Your task to perform on an android device: Clear the shopping cart on bestbuy.com. Add "dell xps" to the cart on bestbuy.com, then select checkout. Image 0: 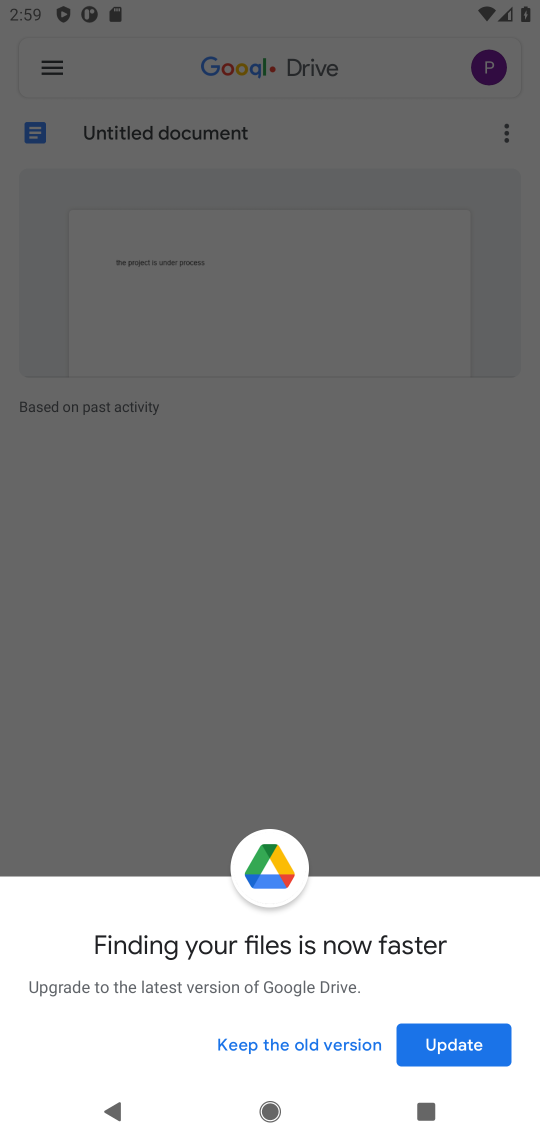
Step 0: press home button
Your task to perform on an android device: Clear the shopping cart on bestbuy.com. Add "dell xps" to the cart on bestbuy.com, then select checkout. Image 1: 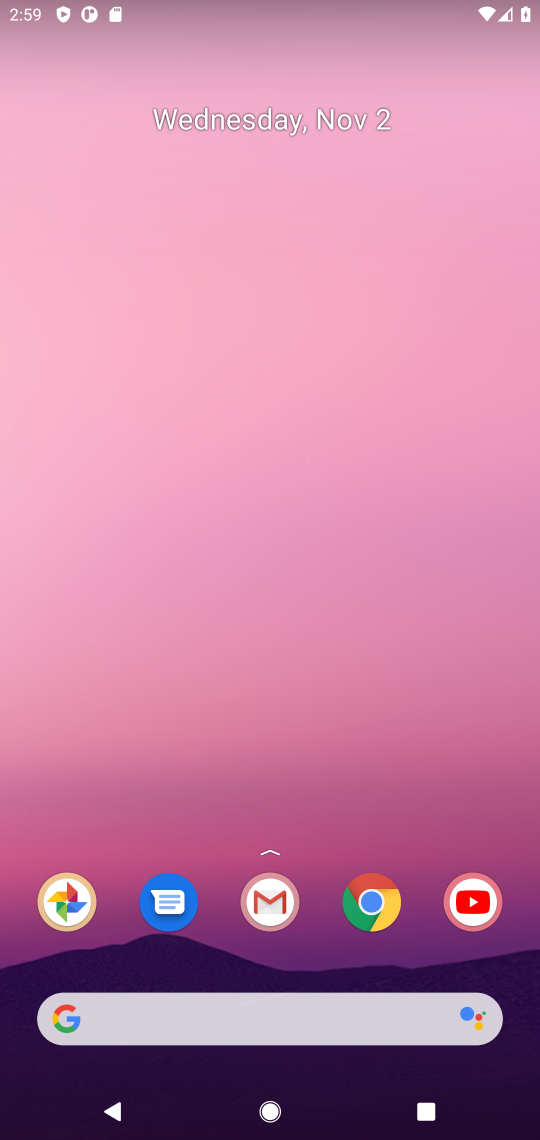
Step 1: click (366, 902)
Your task to perform on an android device: Clear the shopping cart on bestbuy.com. Add "dell xps" to the cart on bestbuy.com, then select checkout. Image 2: 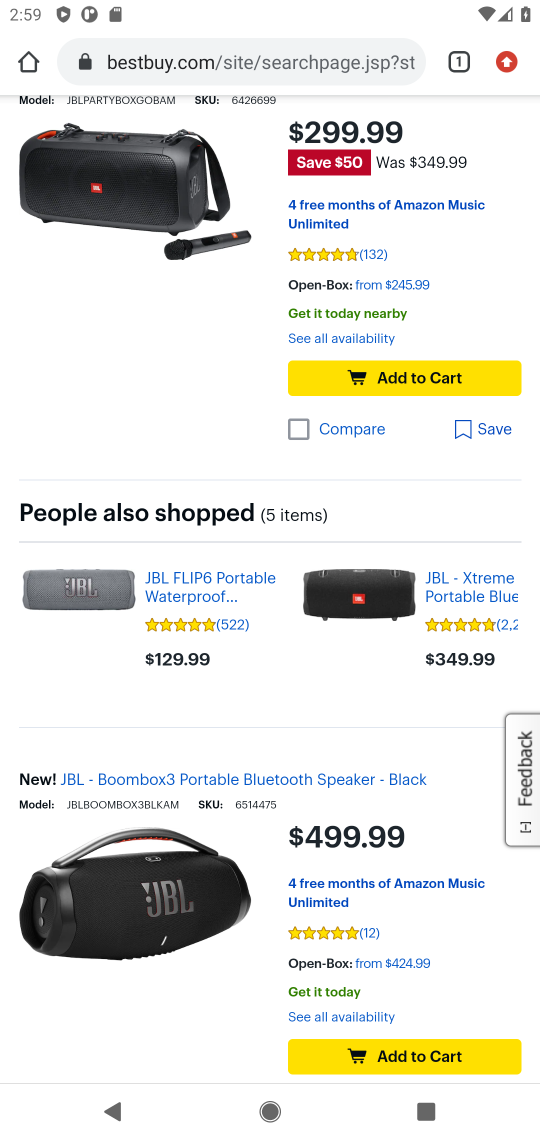
Step 2: click (302, 38)
Your task to perform on an android device: Clear the shopping cart on bestbuy.com. Add "dell xps" to the cart on bestbuy.com, then select checkout. Image 3: 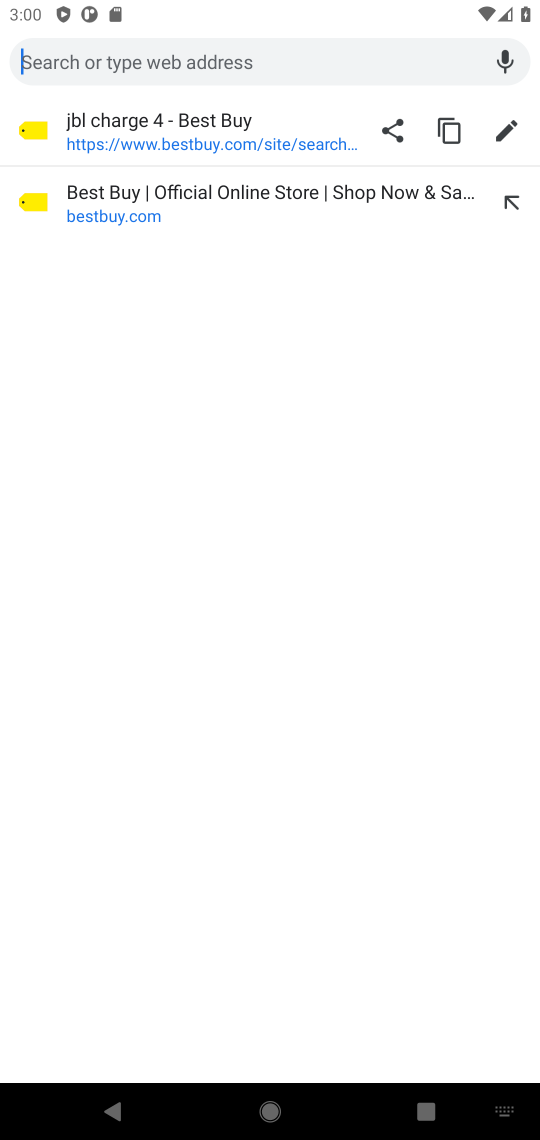
Step 3: type "bestbuy.com"
Your task to perform on an android device: Clear the shopping cart on bestbuy.com. Add "dell xps" to the cart on bestbuy.com, then select checkout. Image 4: 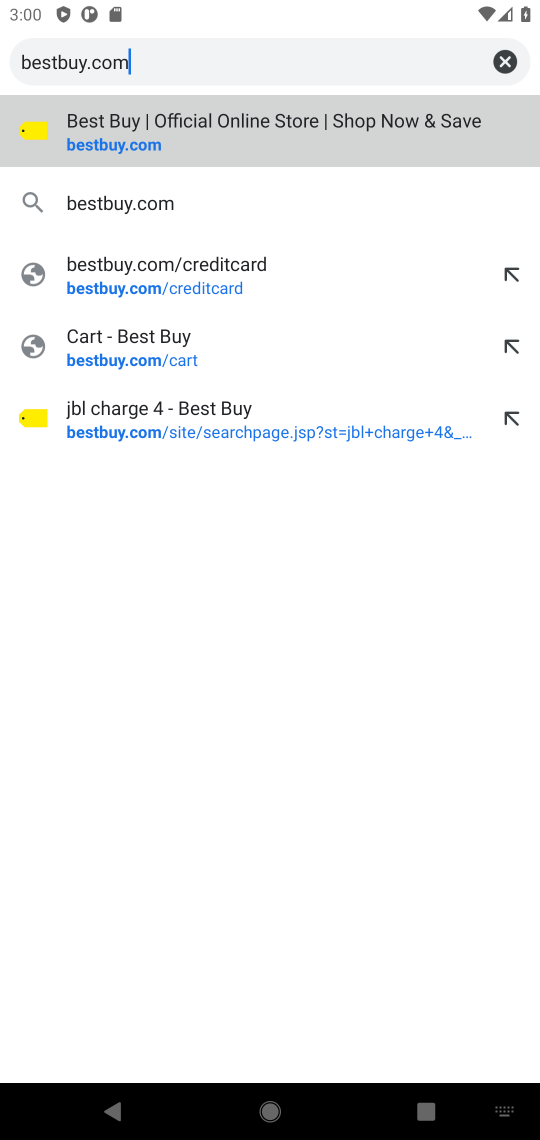
Step 4: click (127, 128)
Your task to perform on an android device: Clear the shopping cart on bestbuy.com. Add "dell xps" to the cart on bestbuy.com, then select checkout. Image 5: 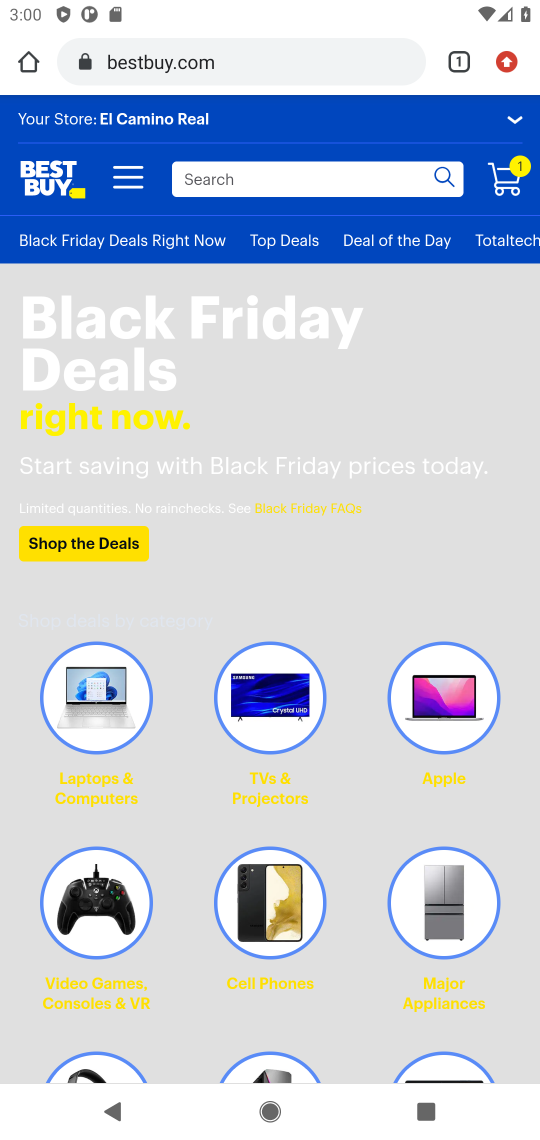
Step 5: click (496, 176)
Your task to perform on an android device: Clear the shopping cart on bestbuy.com. Add "dell xps" to the cart on bestbuy.com, then select checkout. Image 6: 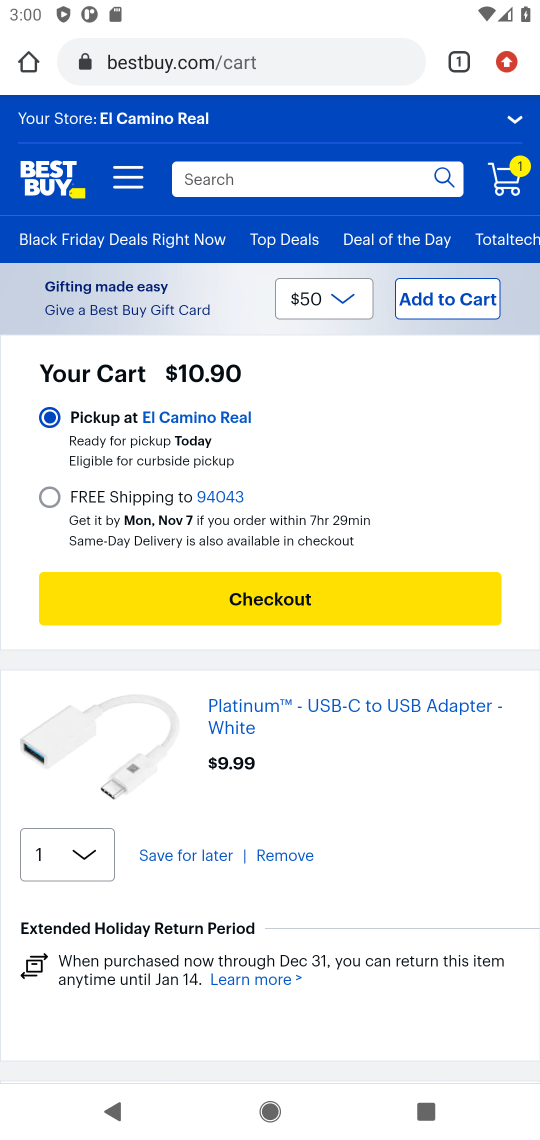
Step 6: click (277, 855)
Your task to perform on an android device: Clear the shopping cart on bestbuy.com. Add "dell xps" to the cart on bestbuy.com, then select checkout. Image 7: 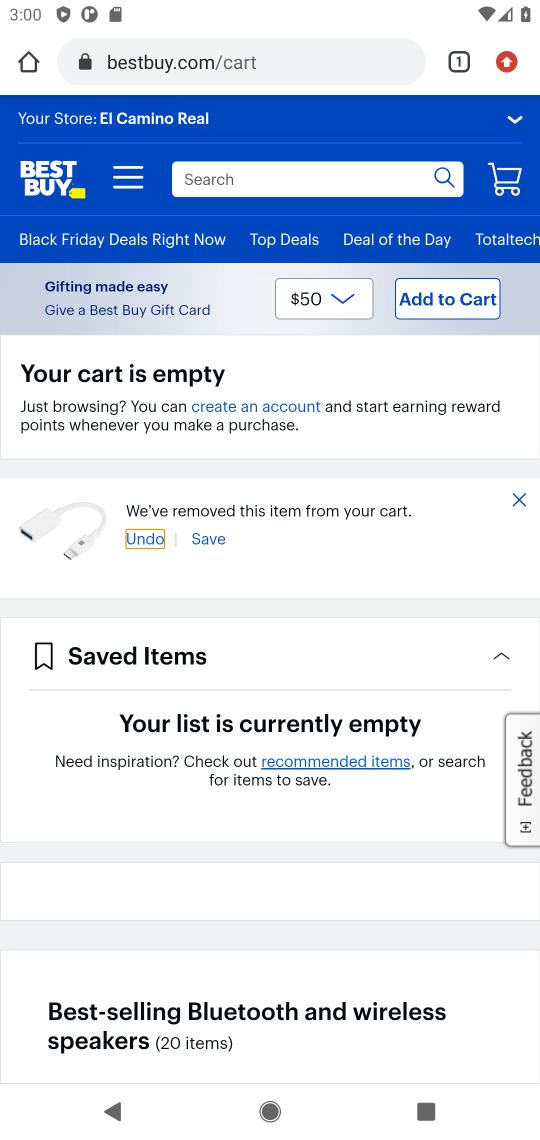
Step 7: click (208, 169)
Your task to perform on an android device: Clear the shopping cart on bestbuy.com. Add "dell xps" to the cart on bestbuy.com, then select checkout. Image 8: 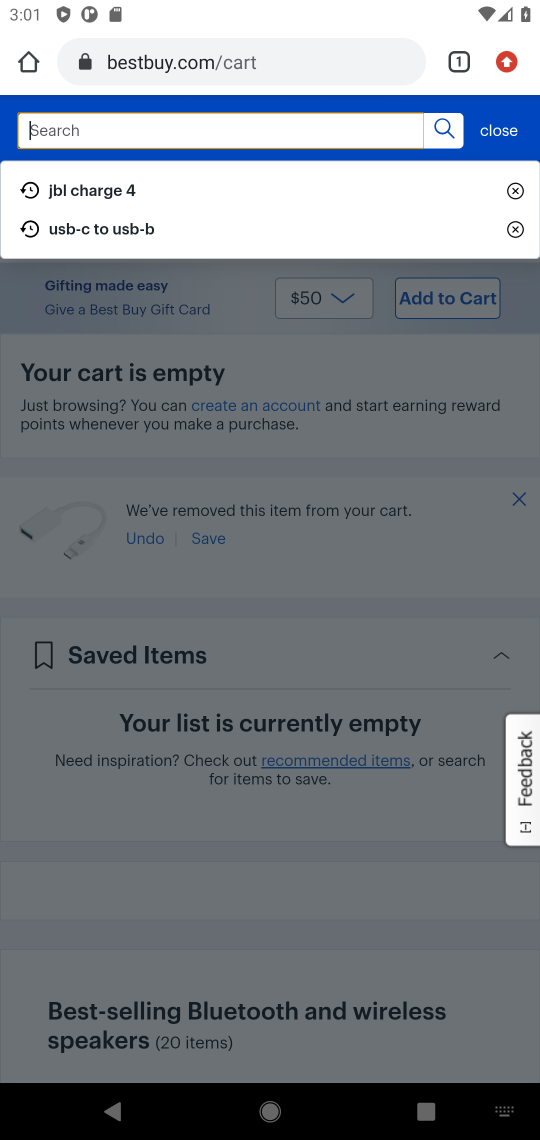
Step 8: type "dell xps"
Your task to perform on an android device: Clear the shopping cart on bestbuy.com. Add "dell xps" to the cart on bestbuy.com, then select checkout. Image 9: 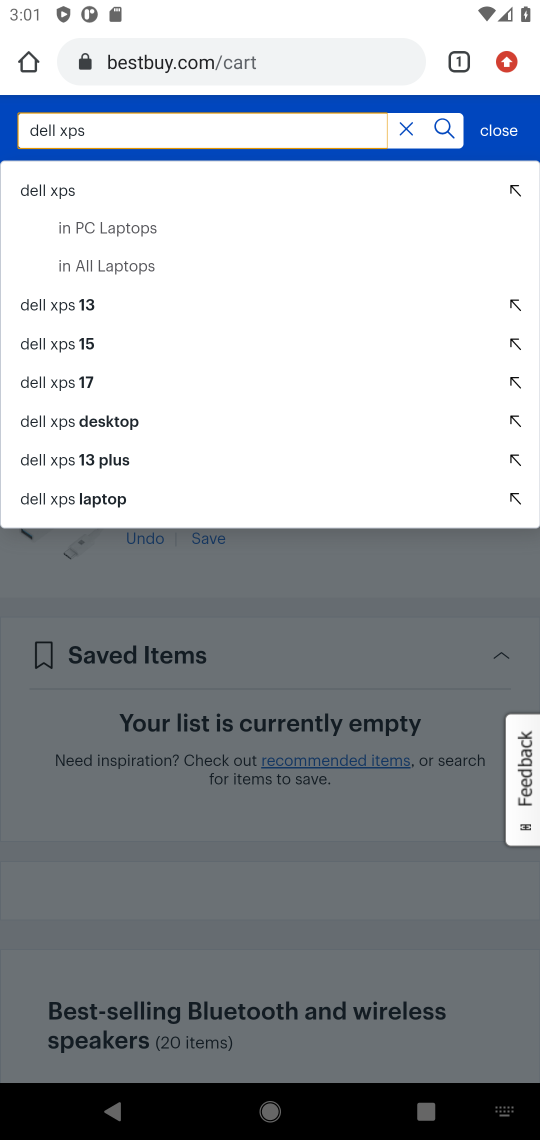
Step 9: click (42, 178)
Your task to perform on an android device: Clear the shopping cart on bestbuy.com. Add "dell xps" to the cart on bestbuy.com, then select checkout. Image 10: 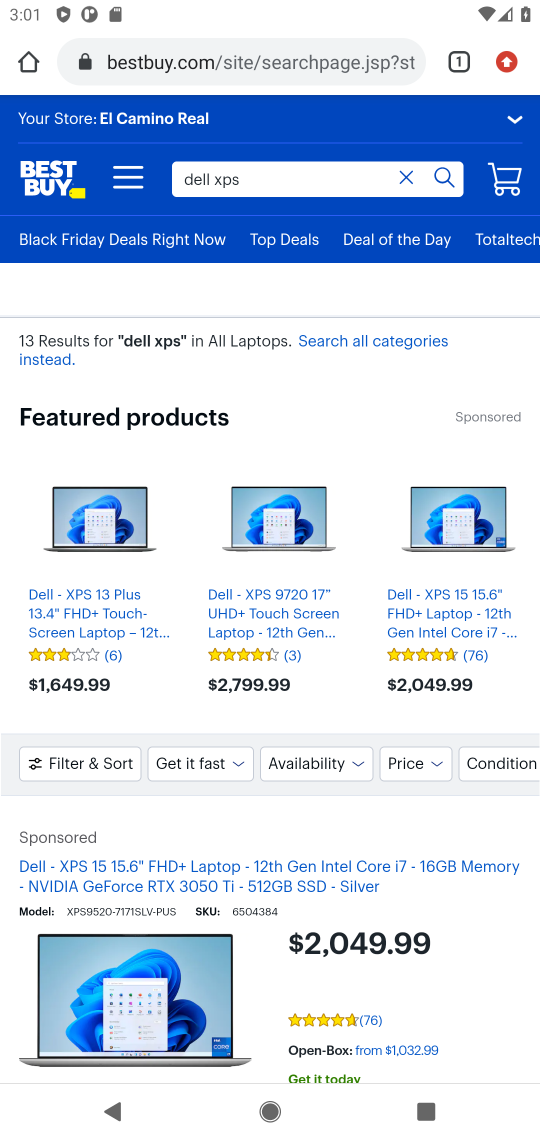
Step 10: drag from (281, 945) to (309, 464)
Your task to perform on an android device: Clear the shopping cart on bestbuy.com. Add "dell xps" to the cart on bestbuy.com, then select checkout. Image 11: 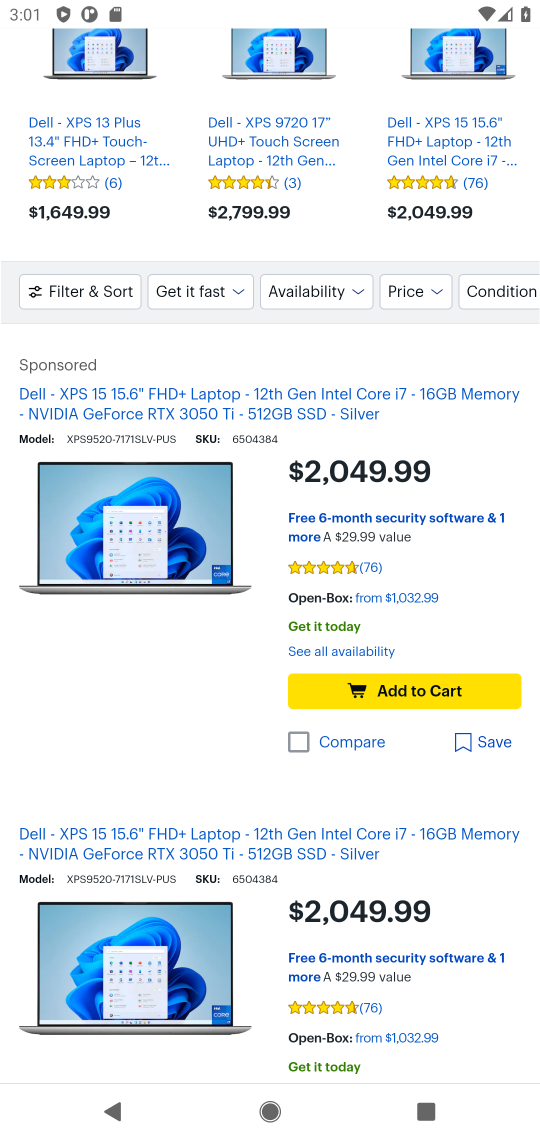
Step 11: click (407, 634)
Your task to perform on an android device: Clear the shopping cart on bestbuy.com. Add "dell xps" to the cart on bestbuy.com, then select checkout. Image 12: 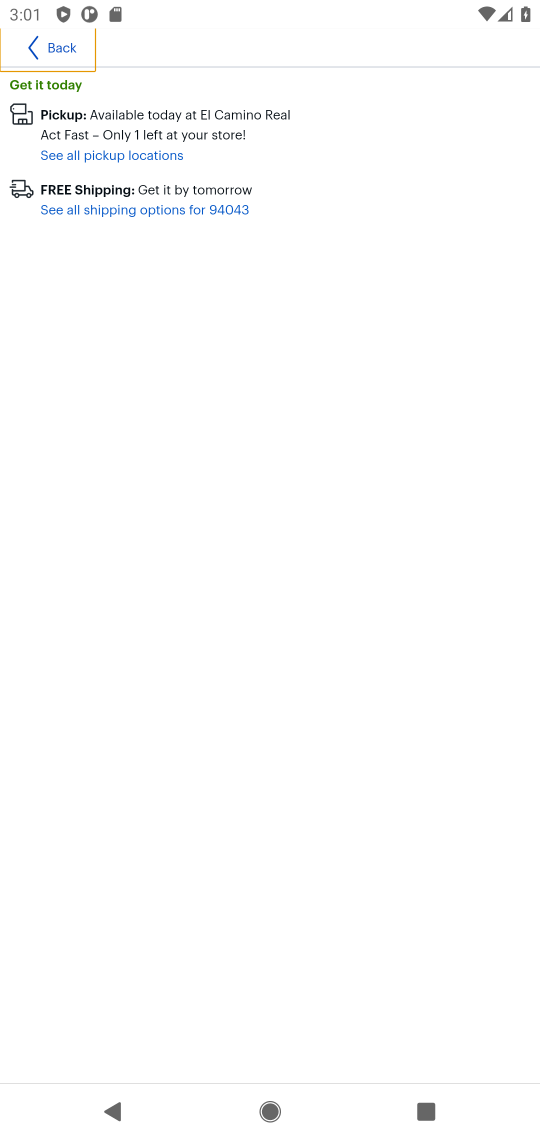
Step 12: click (404, 692)
Your task to perform on an android device: Clear the shopping cart on bestbuy.com. Add "dell xps" to the cart on bestbuy.com, then select checkout. Image 13: 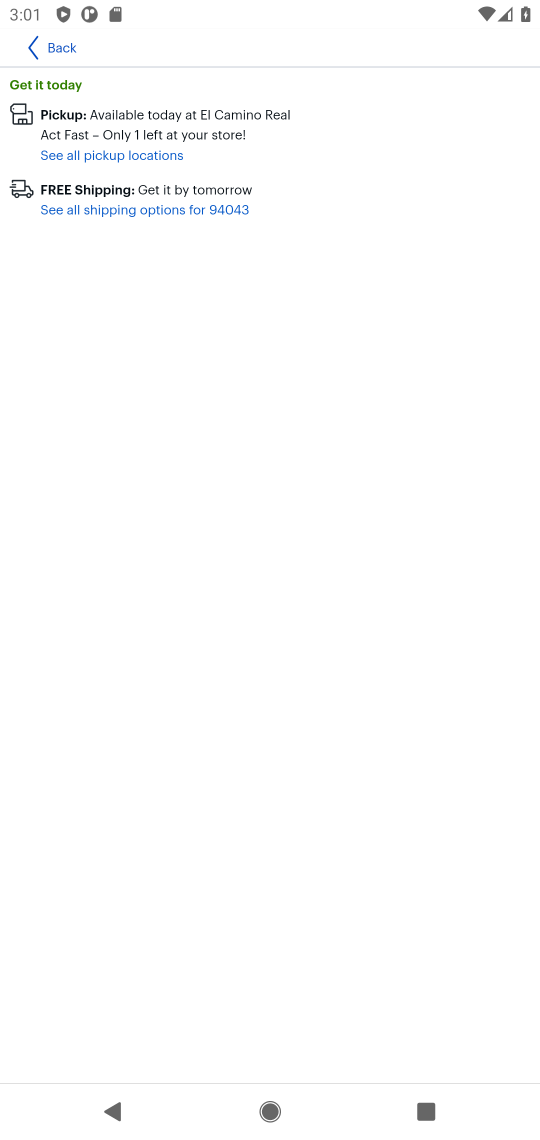
Step 13: click (35, 45)
Your task to perform on an android device: Clear the shopping cart on bestbuy.com. Add "dell xps" to the cart on bestbuy.com, then select checkout. Image 14: 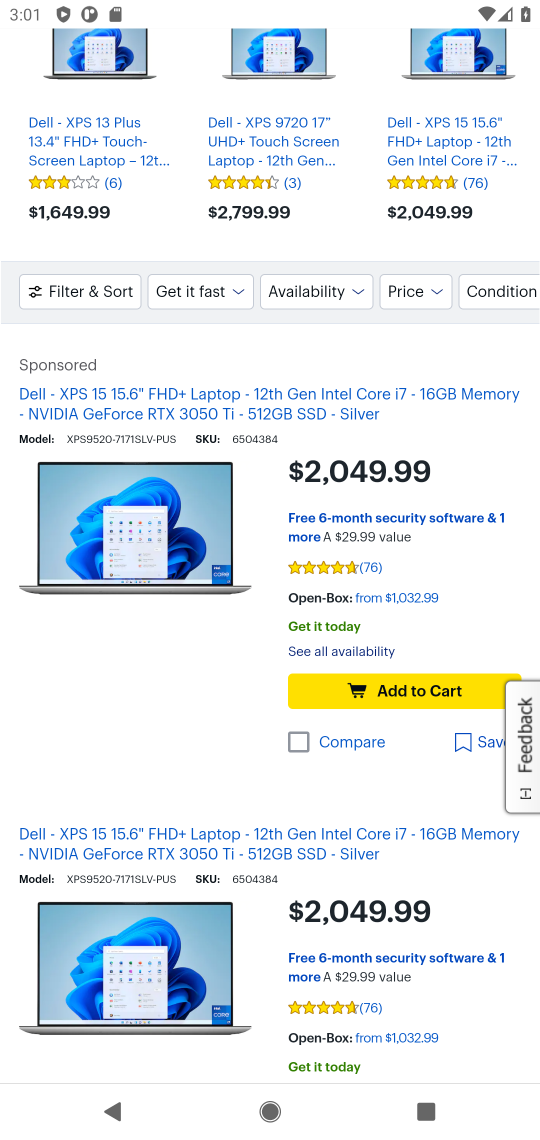
Step 14: click (393, 687)
Your task to perform on an android device: Clear the shopping cart on bestbuy.com. Add "dell xps" to the cart on bestbuy.com, then select checkout. Image 15: 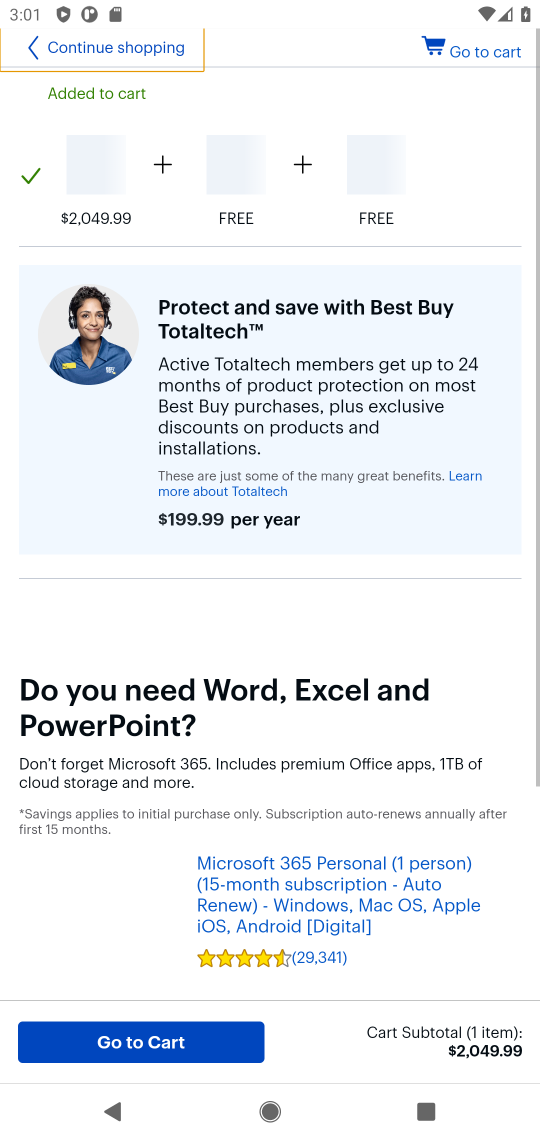
Step 15: click (464, 47)
Your task to perform on an android device: Clear the shopping cart on bestbuy.com. Add "dell xps" to the cart on bestbuy.com, then select checkout. Image 16: 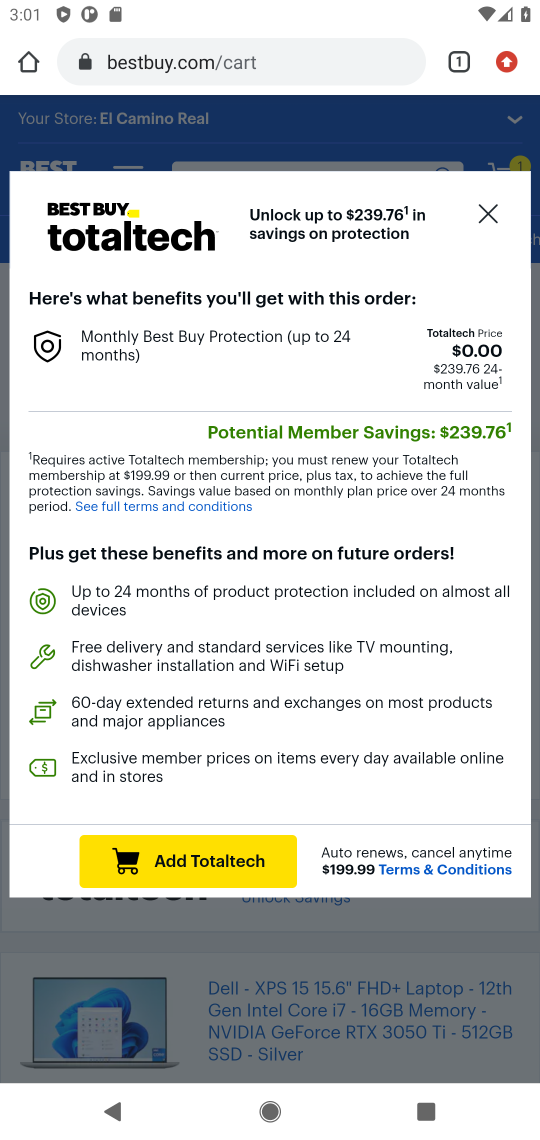
Step 16: click (485, 210)
Your task to perform on an android device: Clear the shopping cart on bestbuy.com. Add "dell xps" to the cart on bestbuy.com, then select checkout. Image 17: 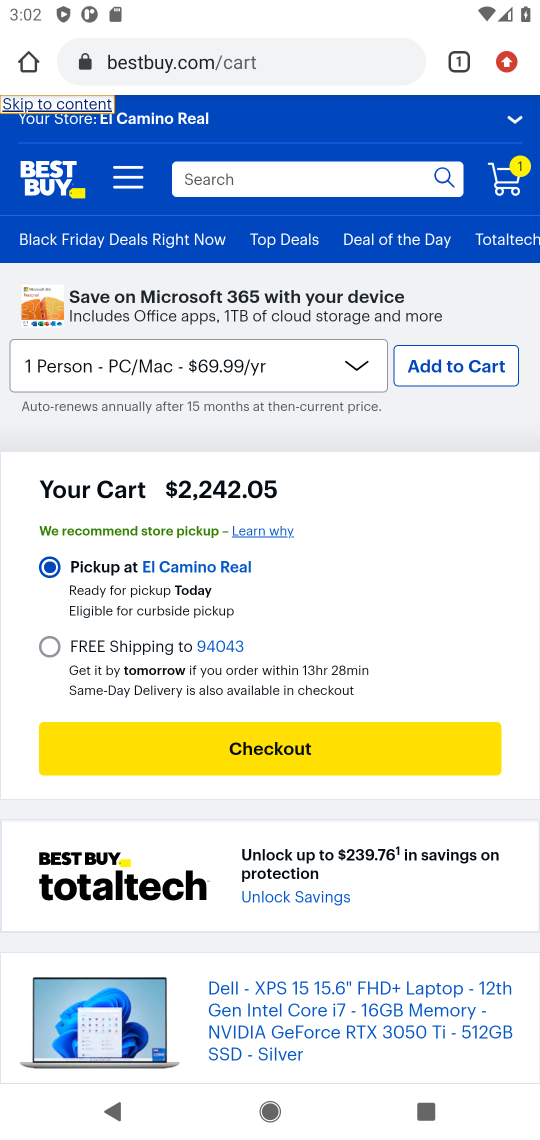
Step 17: click (265, 751)
Your task to perform on an android device: Clear the shopping cart on bestbuy.com. Add "dell xps" to the cart on bestbuy.com, then select checkout. Image 18: 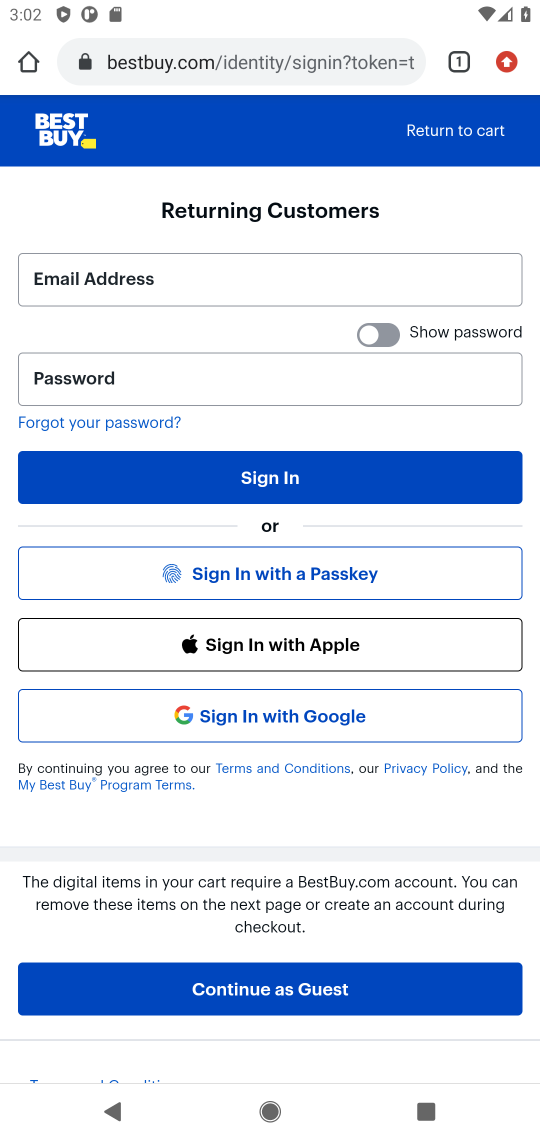
Step 18: task complete